Your task to perform on an android device: Go to wifi settings Image 0: 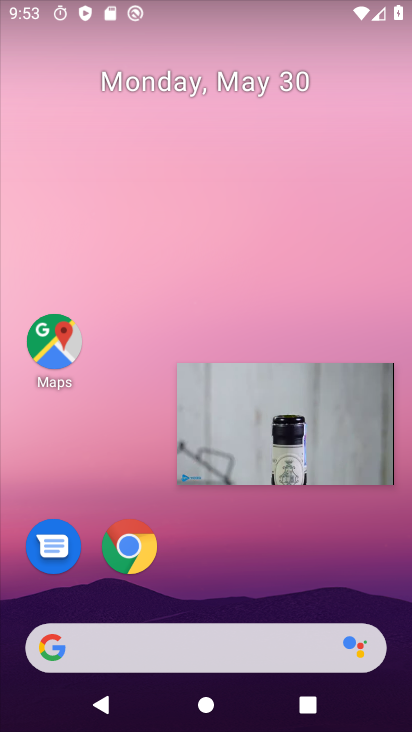
Step 0: click (376, 380)
Your task to perform on an android device: Go to wifi settings Image 1: 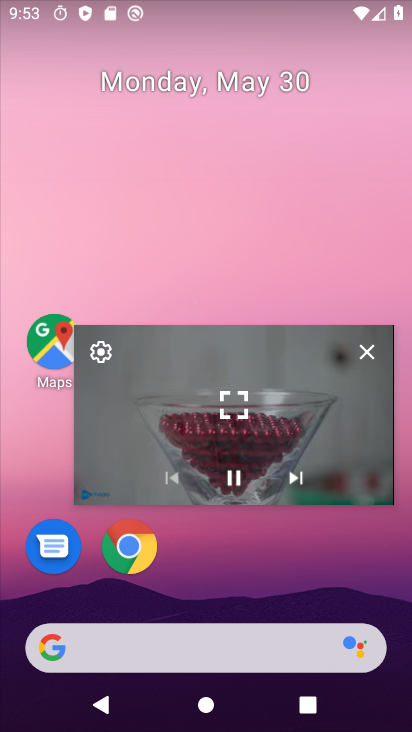
Step 1: click (360, 346)
Your task to perform on an android device: Go to wifi settings Image 2: 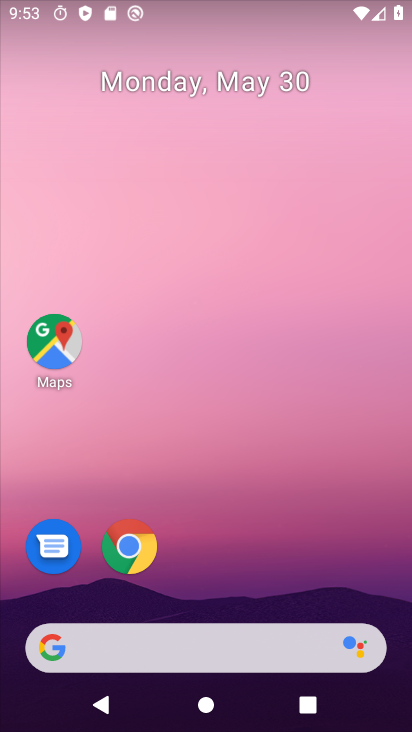
Step 2: drag from (191, 605) to (276, 47)
Your task to perform on an android device: Go to wifi settings Image 3: 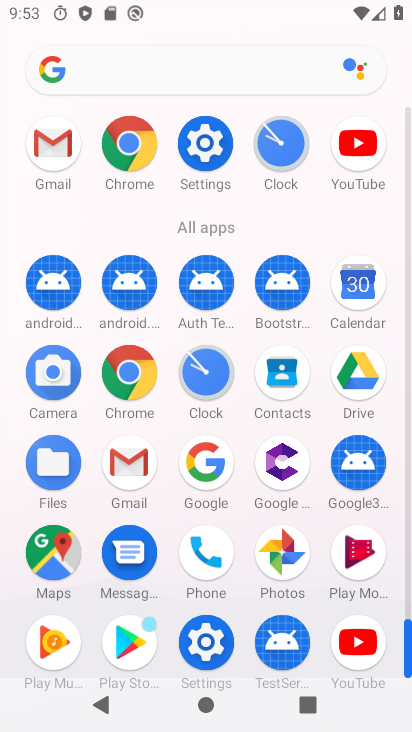
Step 3: drag from (181, 503) to (228, 293)
Your task to perform on an android device: Go to wifi settings Image 4: 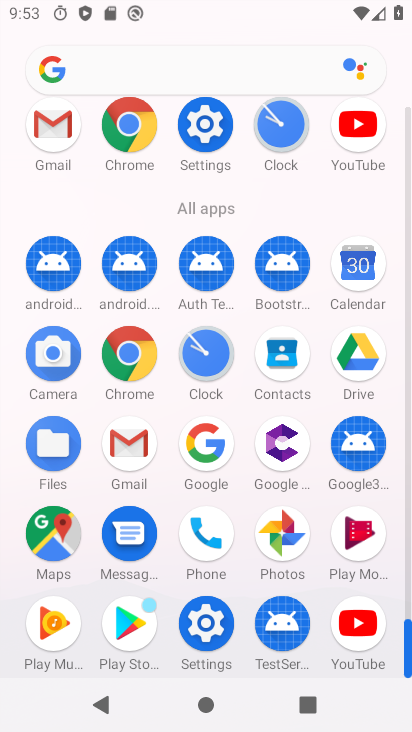
Step 4: click (208, 632)
Your task to perform on an android device: Go to wifi settings Image 5: 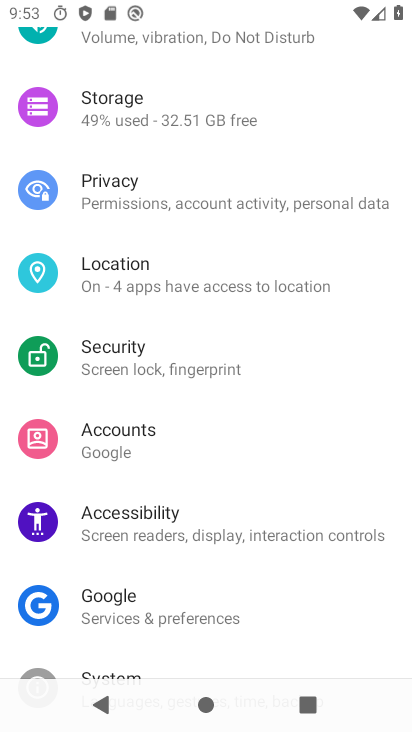
Step 5: drag from (279, 97) to (257, 576)
Your task to perform on an android device: Go to wifi settings Image 6: 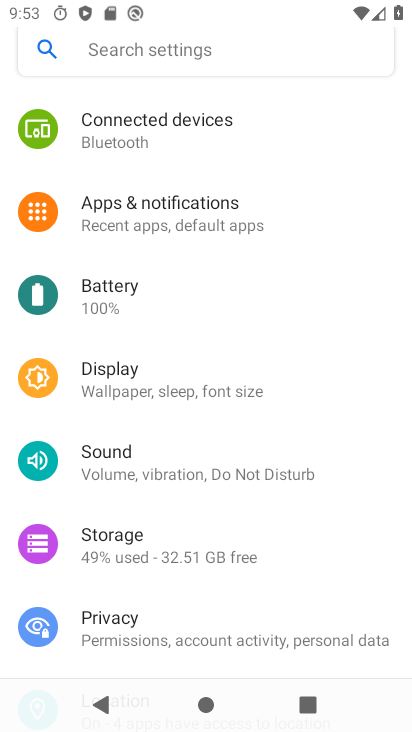
Step 6: drag from (276, 170) to (277, 587)
Your task to perform on an android device: Go to wifi settings Image 7: 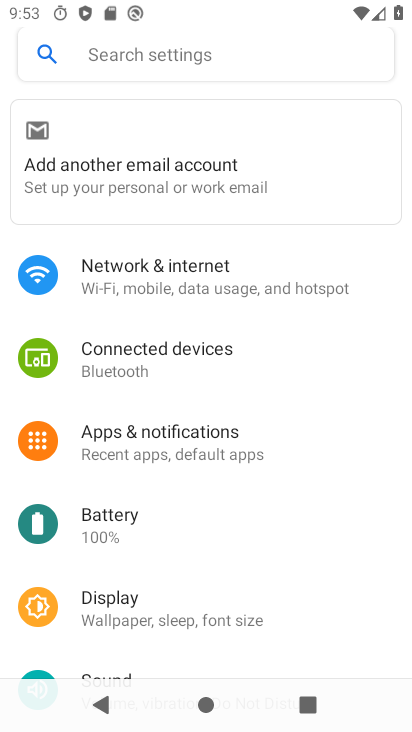
Step 7: click (267, 276)
Your task to perform on an android device: Go to wifi settings Image 8: 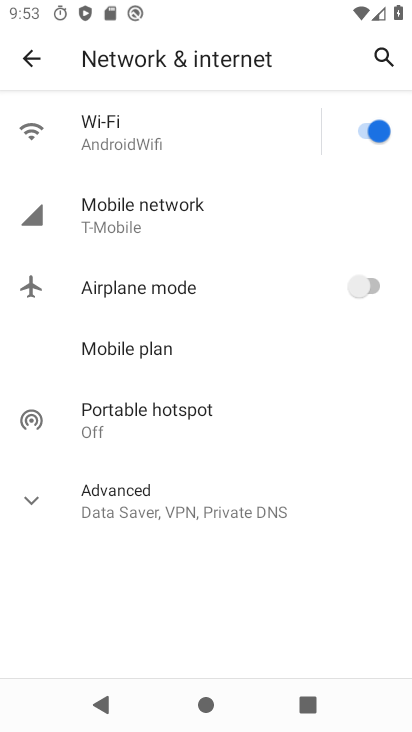
Step 8: click (167, 137)
Your task to perform on an android device: Go to wifi settings Image 9: 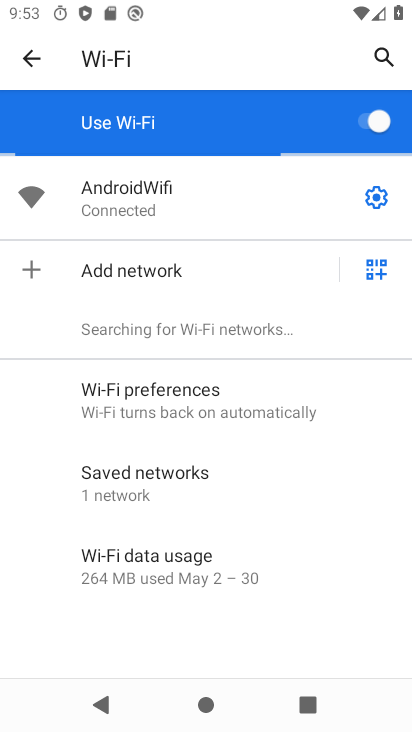
Step 9: task complete